Your task to perform on an android device: turn off translation in the chrome app Image 0: 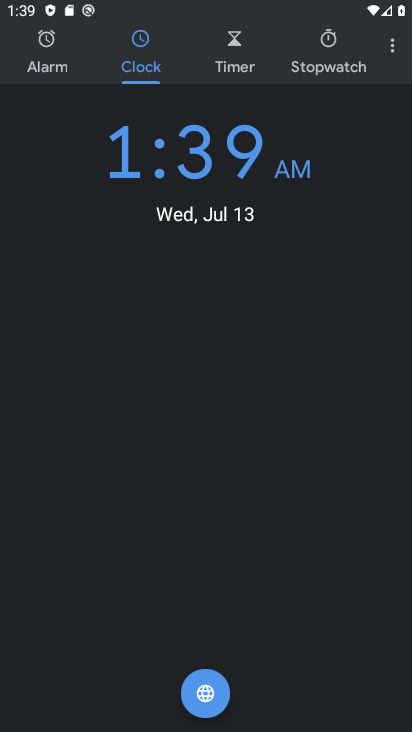
Step 0: press home button
Your task to perform on an android device: turn off translation in the chrome app Image 1: 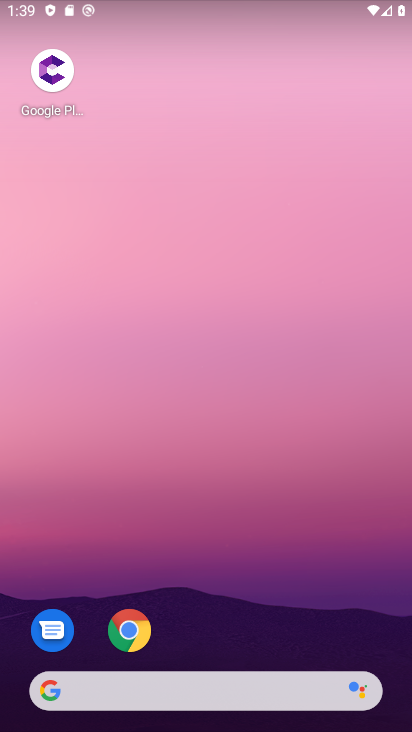
Step 1: click (135, 638)
Your task to perform on an android device: turn off translation in the chrome app Image 2: 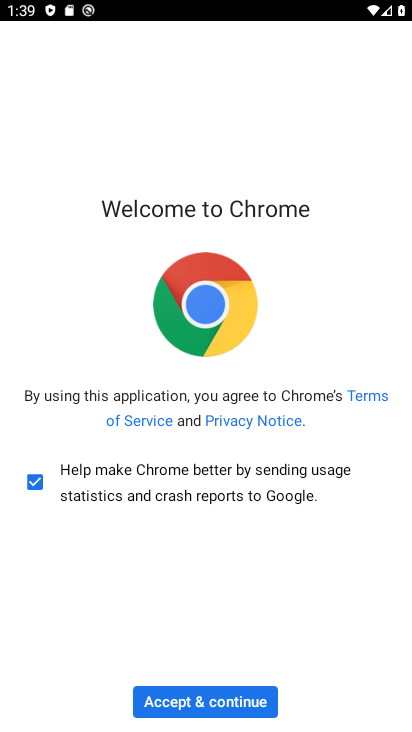
Step 2: click (229, 694)
Your task to perform on an android device: turn off translation in the chrome app Image 3: 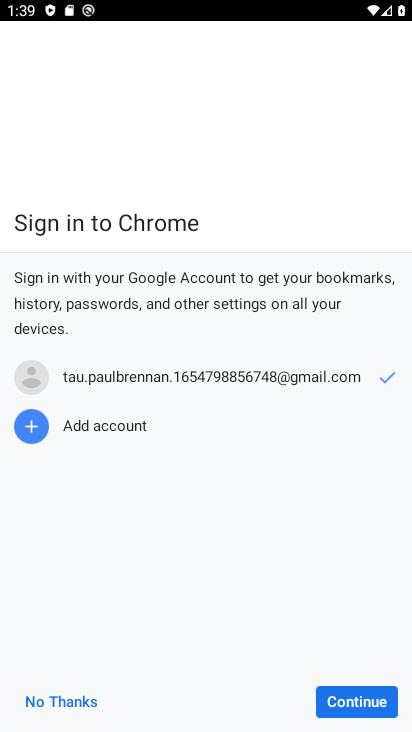
Step 3: click (365, 680)
Your task to perform on an android device: turn off translation in the chrome app Image 4: 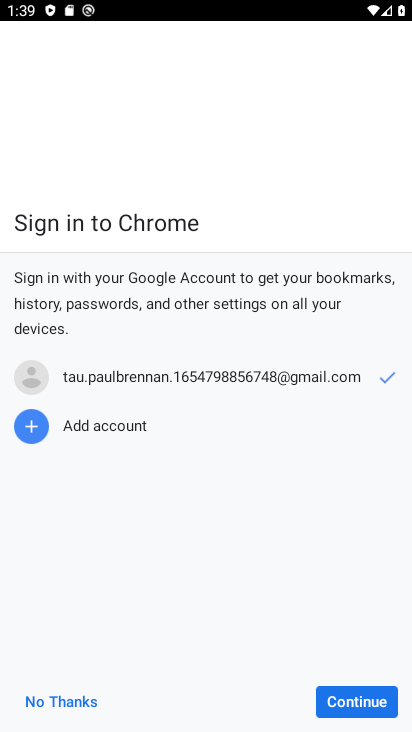
Step 4: click (340, 701)
Your task to perform on an android device: turn off translation in the chrome app Image 5: 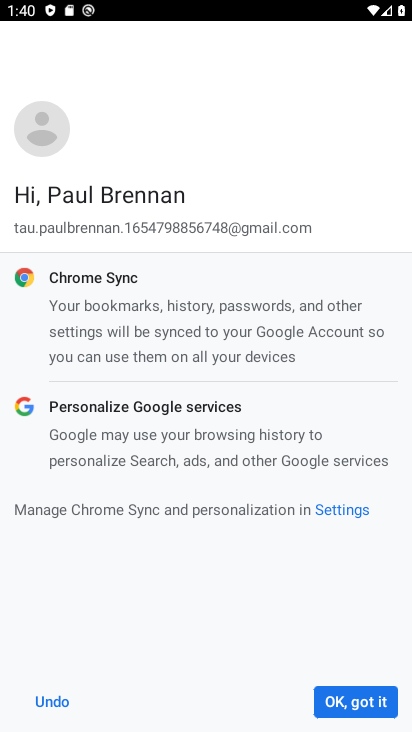
Step 5: click (382, 696)
Your task to perform on an android device: turn off translation in the chrome app Image 6: 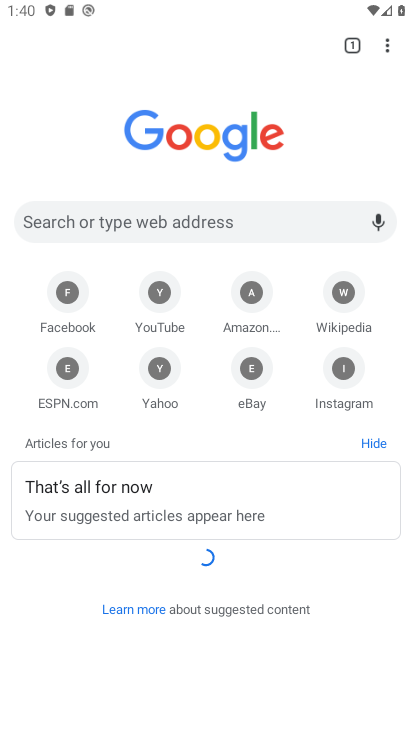
Step 6: click (386, 40)
Your task to perform on an android device: turn off translation in the chrome app Image 7: 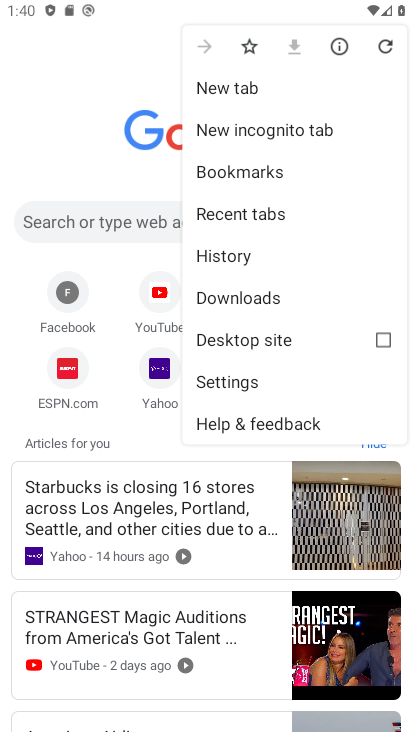
Step 7: click (238, 375)
Your task to perform on an android device: turn off translation in the chrome app Image 8: 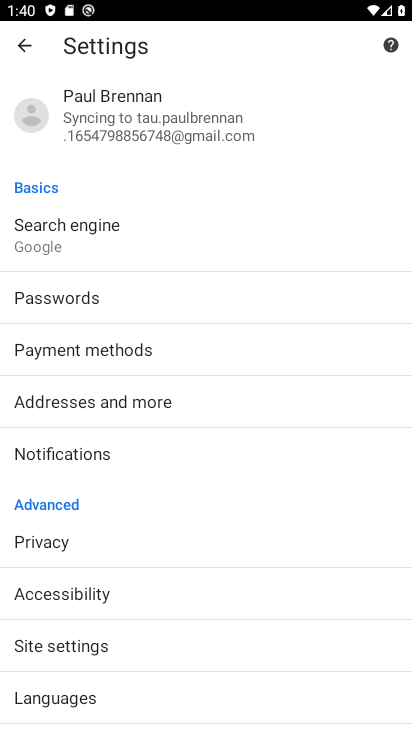
Step 8: click (128, 701)
Your task to perform on an android device: turn off translation in the chrome app Image 9: 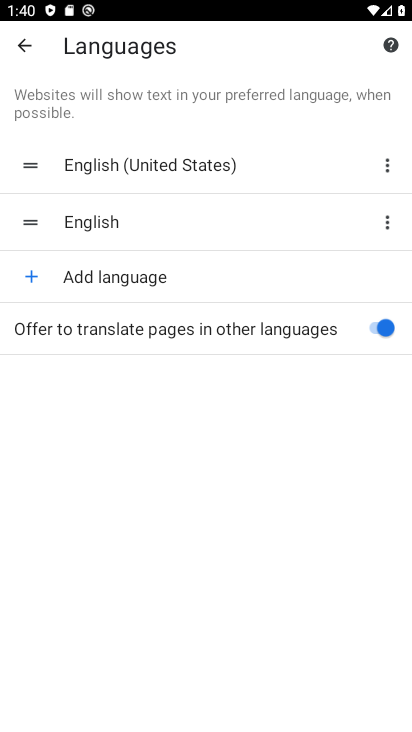
Step 9: click (370, 327)
Your task to perform on an android device: turn off translation in the chrome app Image 10: 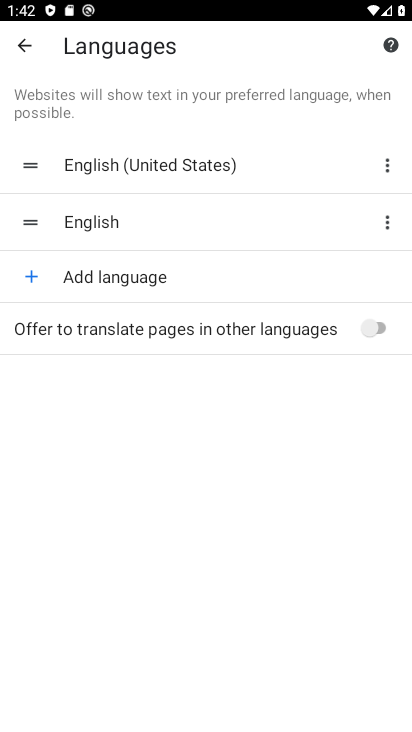
Step 10: task complete